Your task to perform on an android device: set the timer Image 0: 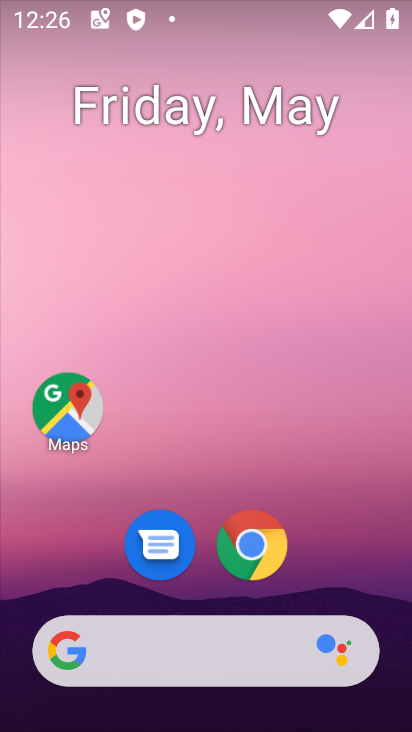
Step 0: drag from (410, 572) to (354, 245)
Your task to perform on an android device: set the timer Image 1: 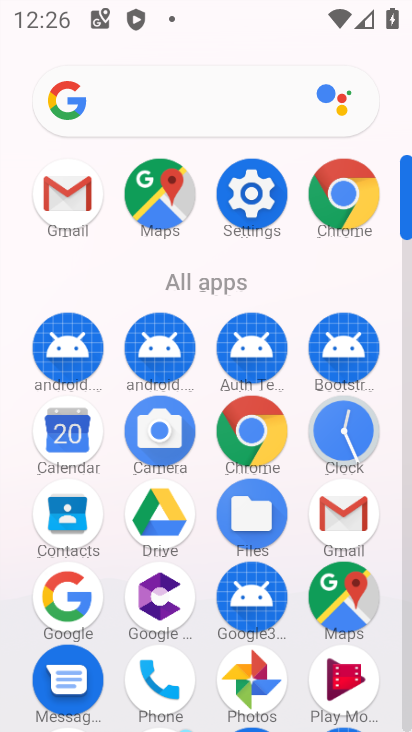
Step 1: click (349, 440)
Your task to perform on an android device: set the timer Image 2: 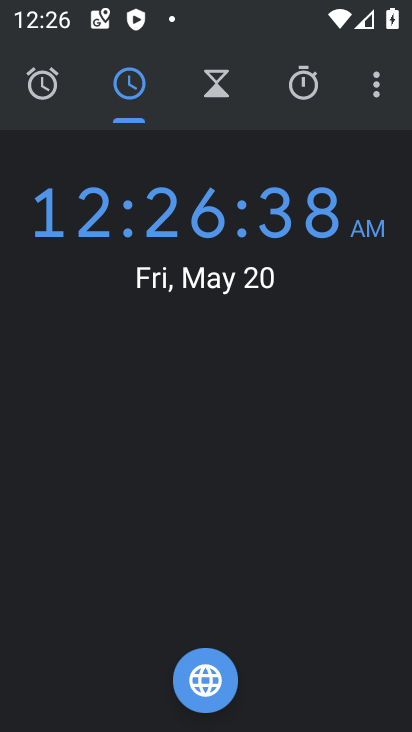
Step 2: click (377, 91)
Your task to perform on an android device: set the timer Image 3: 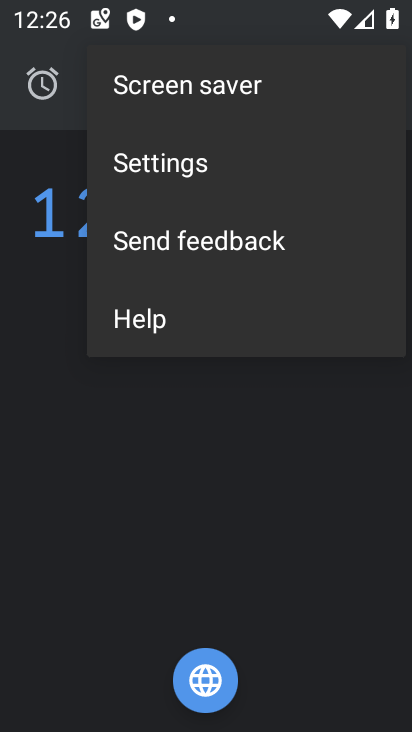
Step 3: click (227, 186)
Your task to perform on an android device: set the timer Image 4: 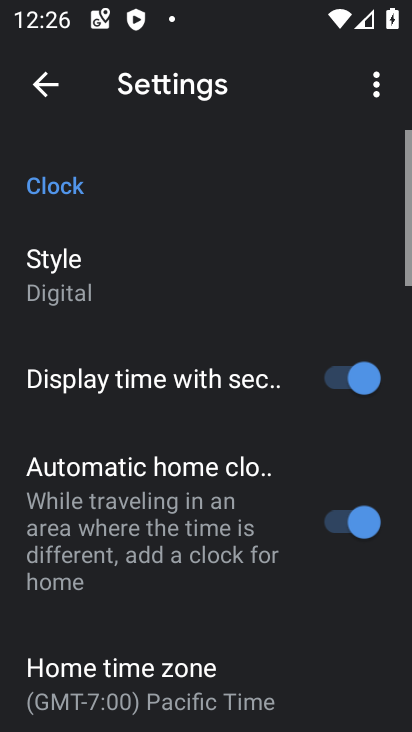
Step 4: task complete